Your task to perform on an android device: open app "Google Play Music" Image 0: 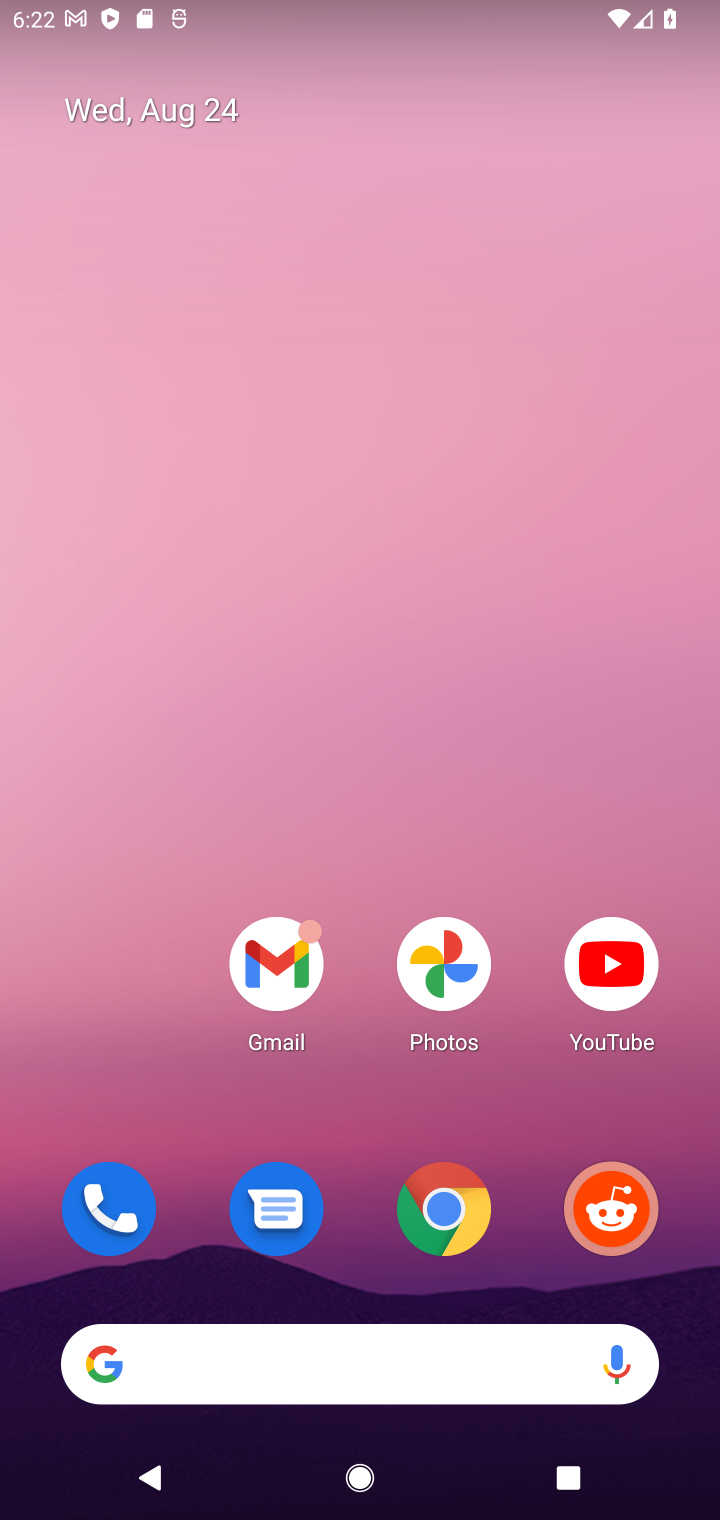
Step 0: drag from (532, 1195) to (600, 346)
Your task to perform on an android device: open app "Google Play Music" Image 1: 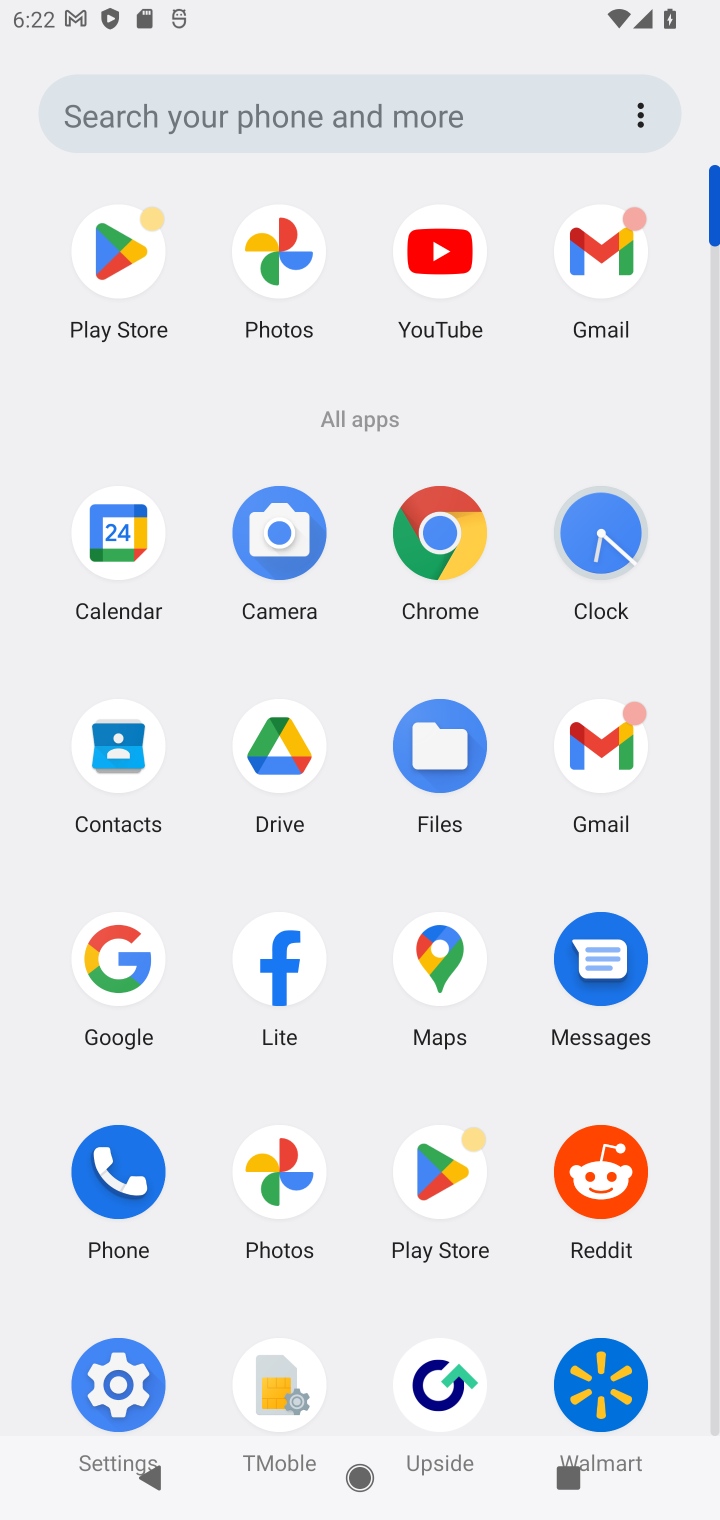
Step 1: click (447, 1208)
Your task to perform on an android device: open app "Google Play Music" Image 2: 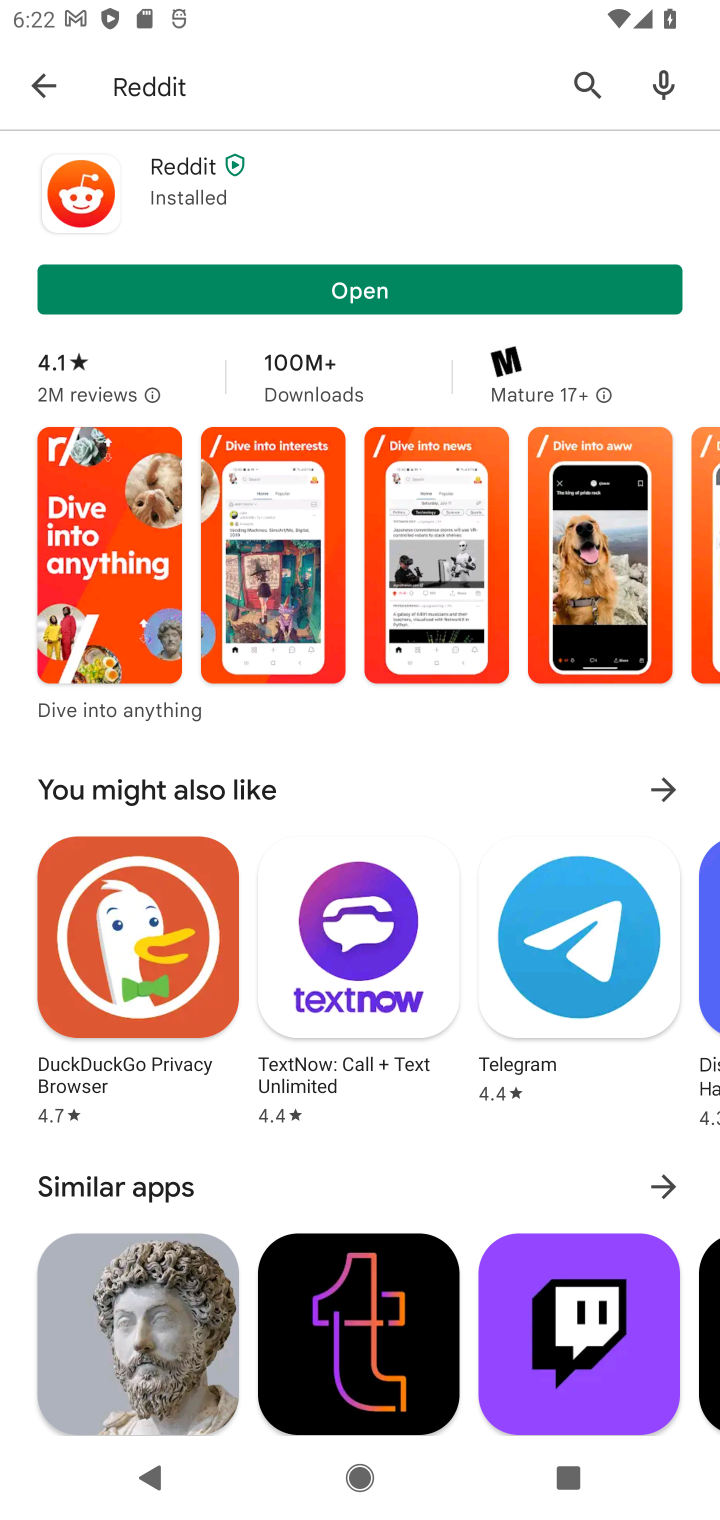
Step 2: press back button
Your task to perform on an android device: open app "Google Play Music" Image 3: 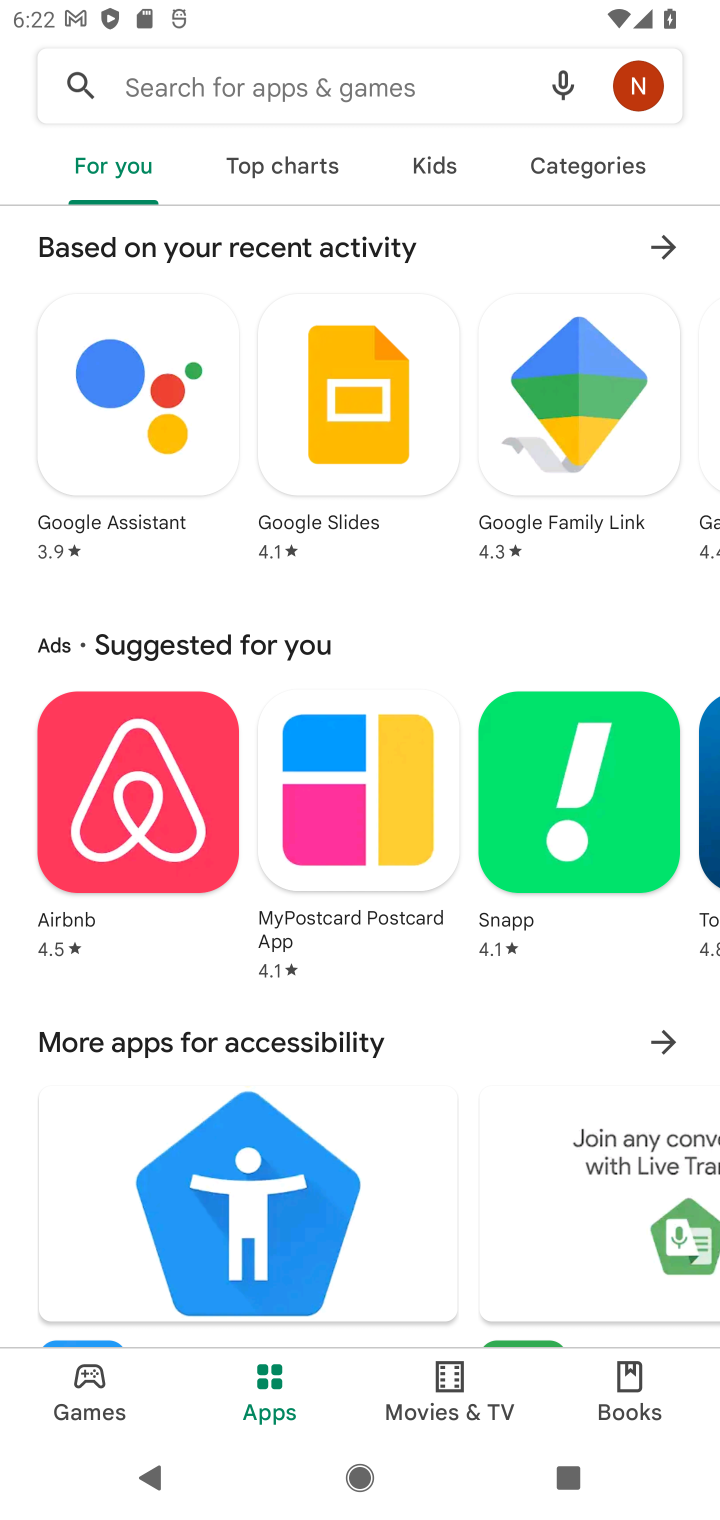
Step 3: click (280, 95)
Your task to perform on an android device: open app "Google Play Music" Image 4: 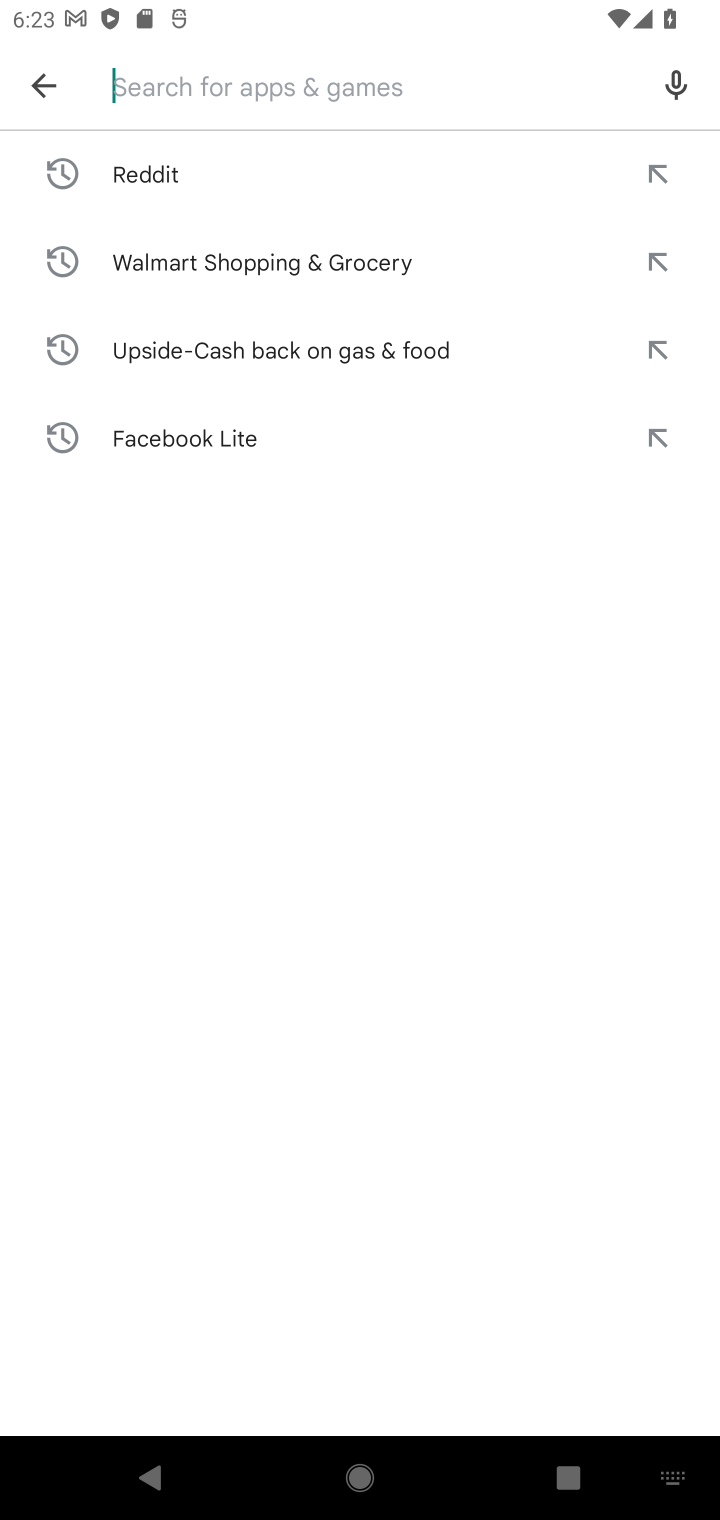
Step 4: type "Google Play Music"
Your task to perform on an android device: open app "Google Play Music" Image 5: 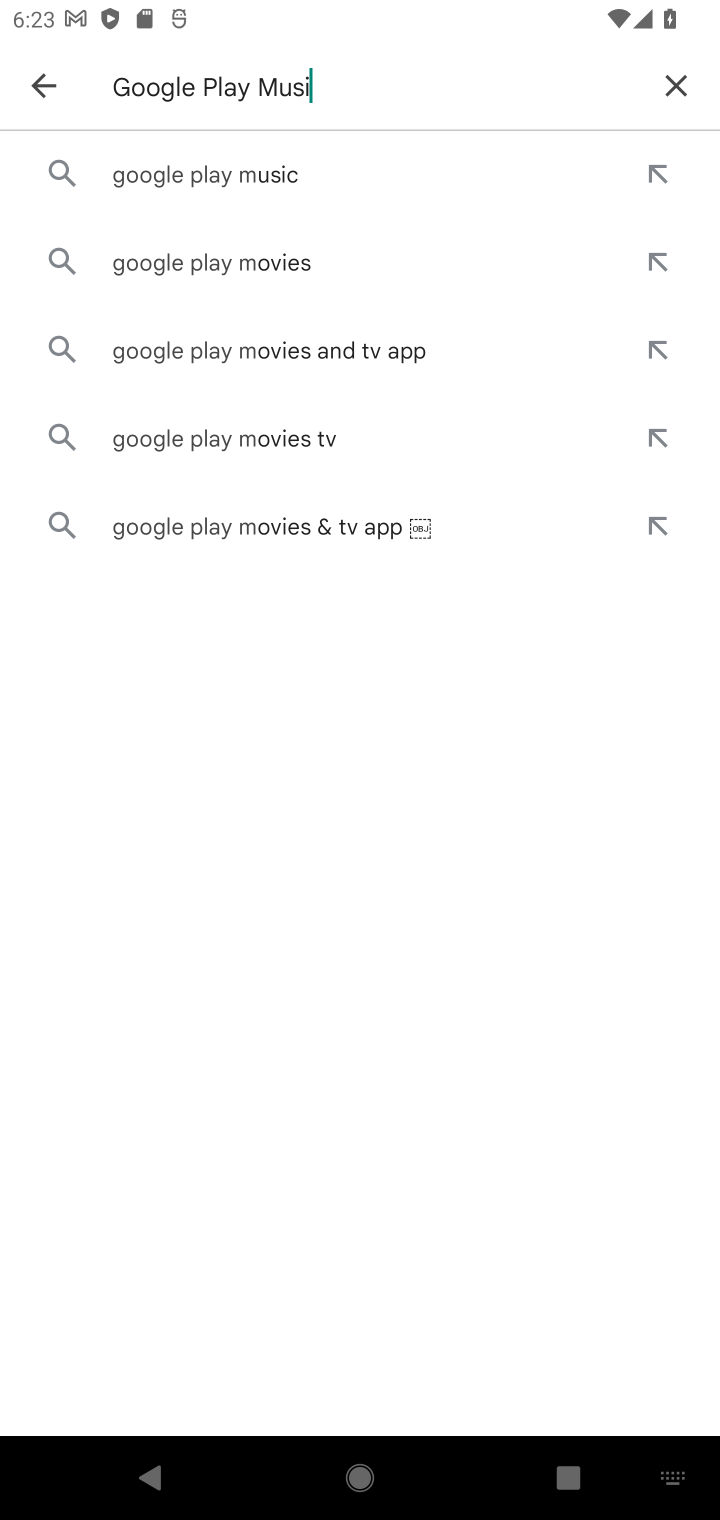
Step 5: press enter
Your task to perform on an android device: open app "Google Play Music" Image 6: 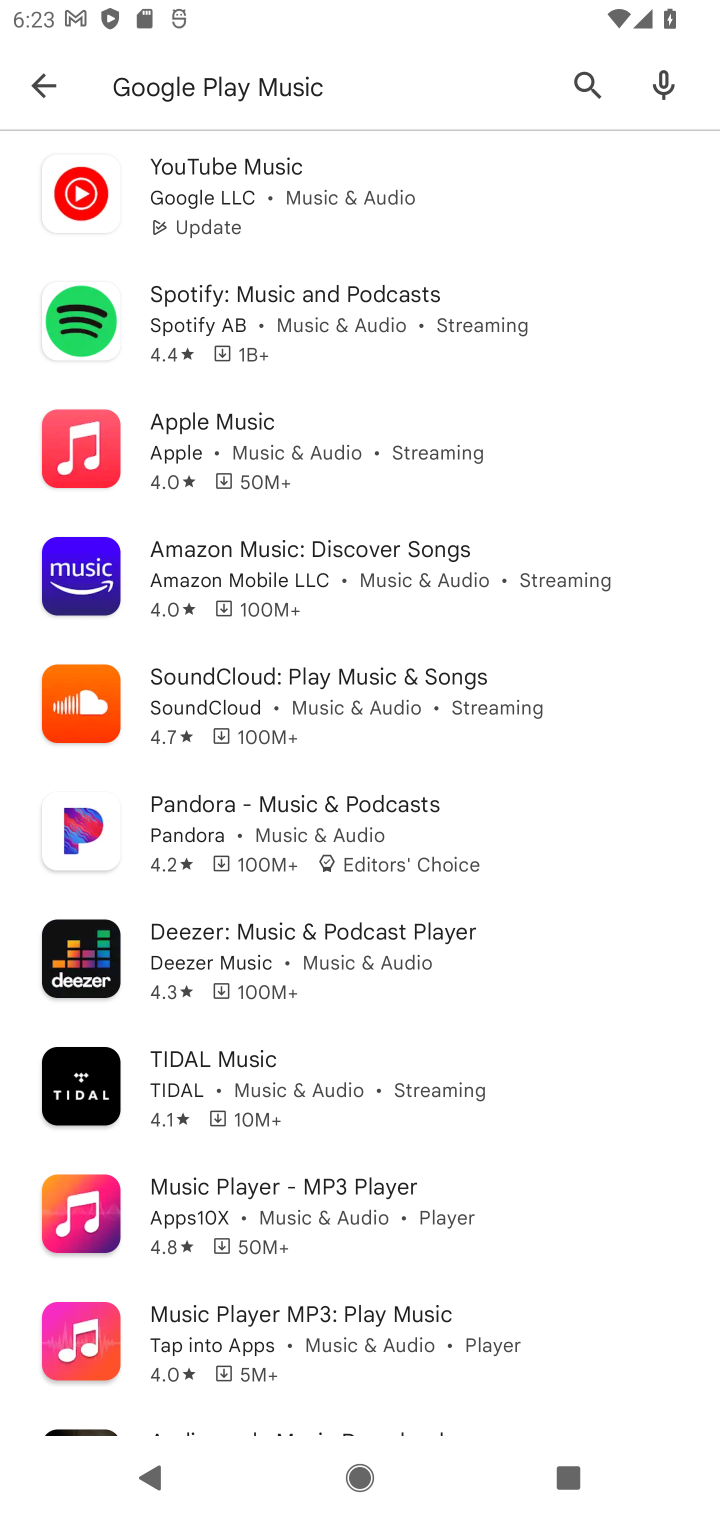
Step 6: task complete